Your task to perform on an android device: Open location settings Image 0: 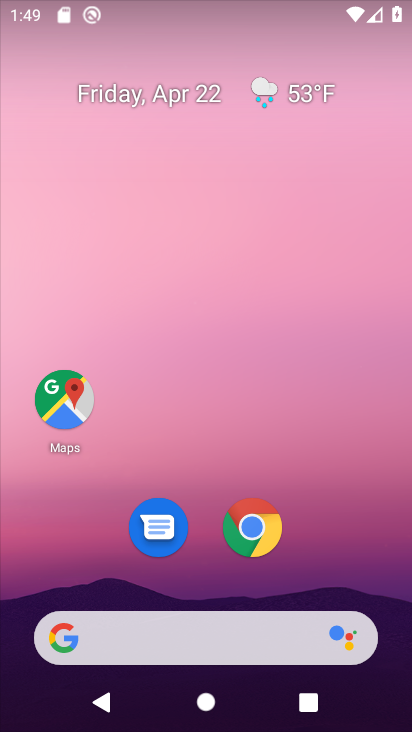
Step 0: drag from (316, 573) to (135, 156)
Your task to perform on an android device: Open location settings Image 1: 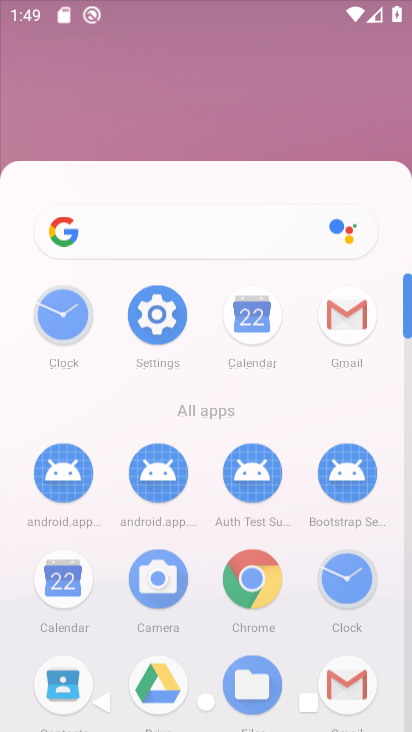
Step 1: drag from (298, 1) to (135, 156)
Your task to perform on an android device: Open location settings Image 2: 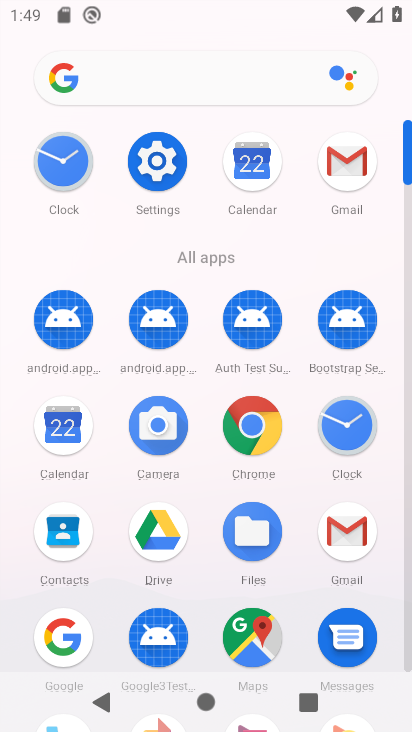
Step 2: drag from (298, 1) to (135, 156)
Your task to perform on an android device: Open location settings Image 3: 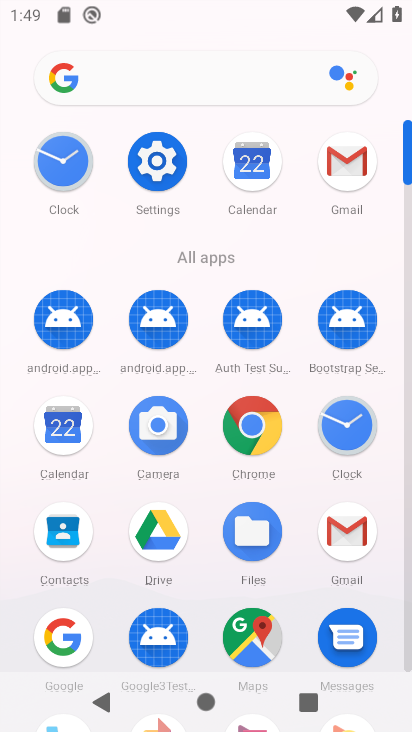
Step 3: click (168, 196)
Your task to perform on an android device: Open location settings Image 4: 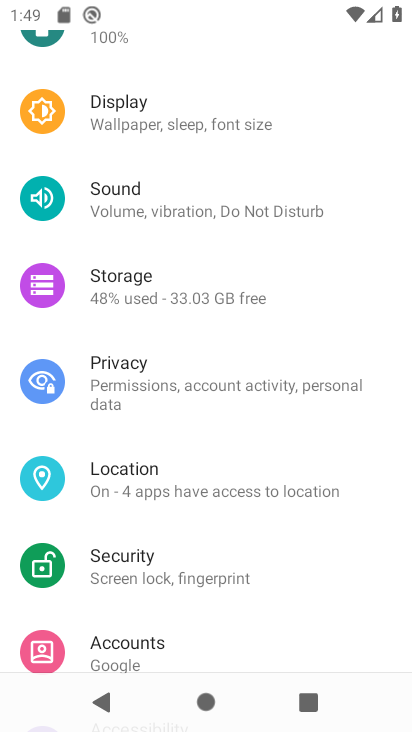
Step 4: click (182, 492)
Your task to perform on an android device: Open location settings Image 5: 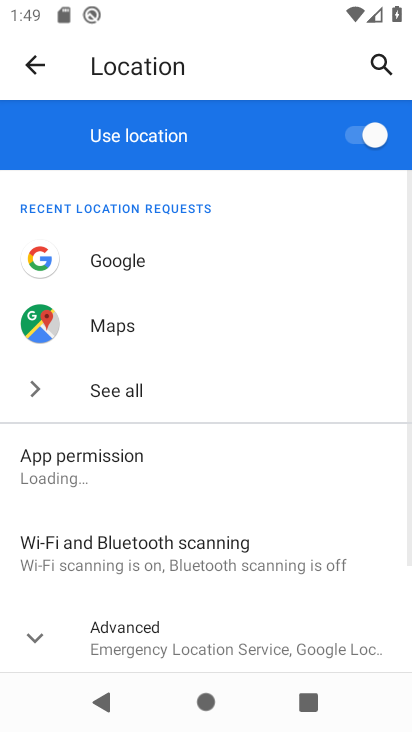
Step 5: task complete